Your task to perform on an android device: What's on my calendar today? Image 0: 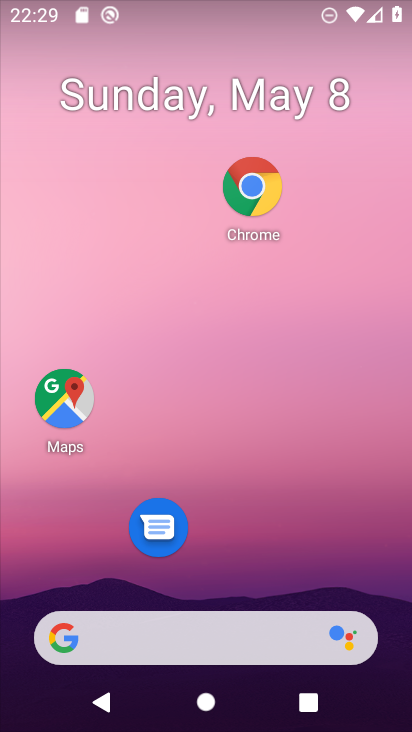
Step 0: drag from (277, 368) to (277, 295)
Your task to perform on an android device: What's on my calendar today? Image 1: 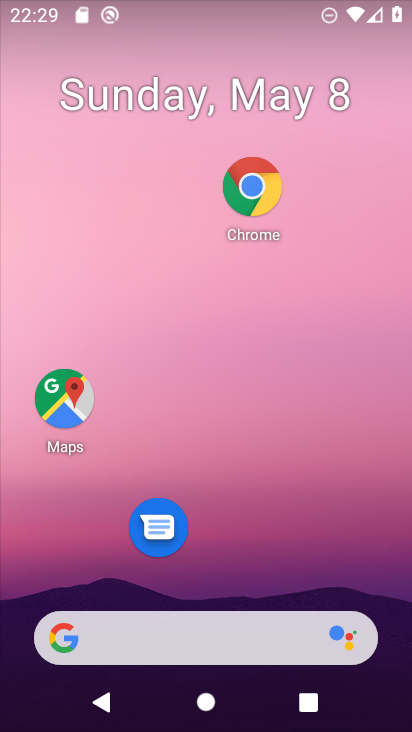
Step 1: drag from (366, 538) to (386, 285)
Your task to perform on an android device: What's on my calendar today? Image 2: 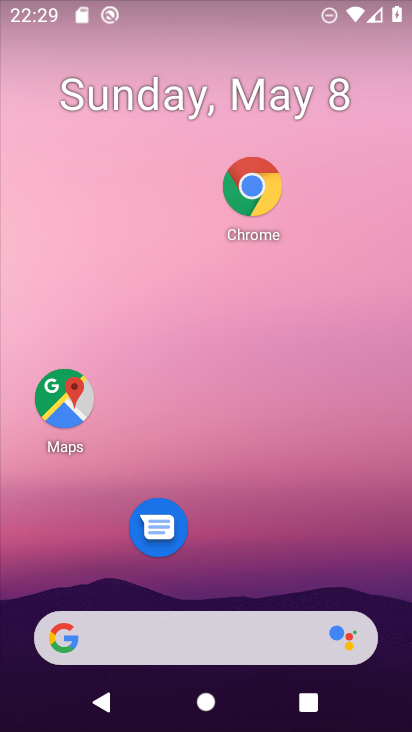
Step 2: drag from (255, 563) to (319, 369)
Your task to perform on an android device: What's on my calendar today? Image 3: 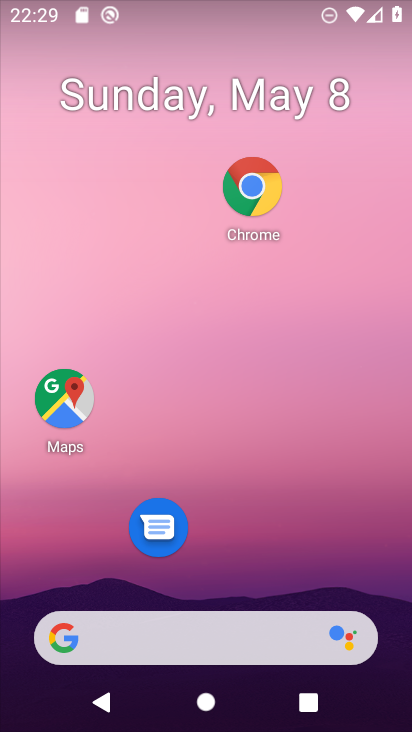
Step 3: drag from (284, 440) to (281, 198)
Your task to perform on an android device: What's on my calendar today? Image 4: 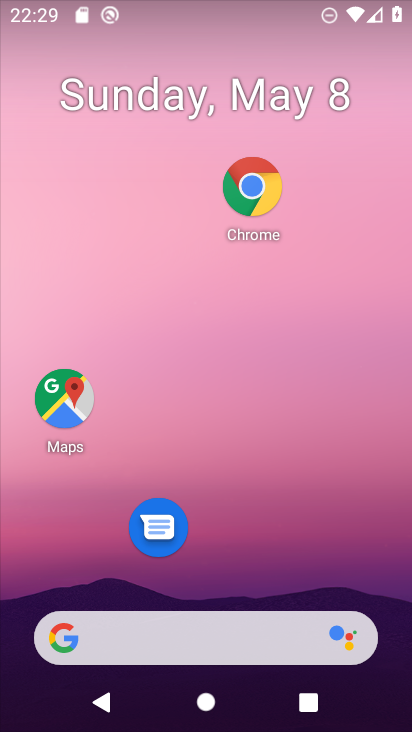
Step 4: drag from (275, 475) to (313, 322)
Your task to perform on an android device: What's on my calendar today? Image 5: 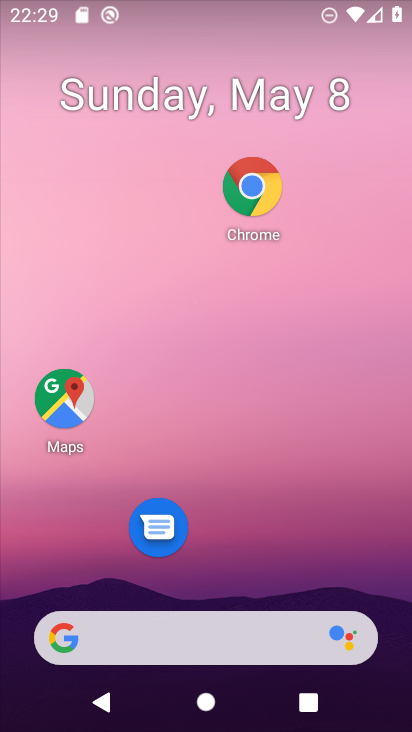
Step 5: drag from (227, 595) to (312, 107)
Your task to perform on an android device: What's on my calendar today? Image 6: 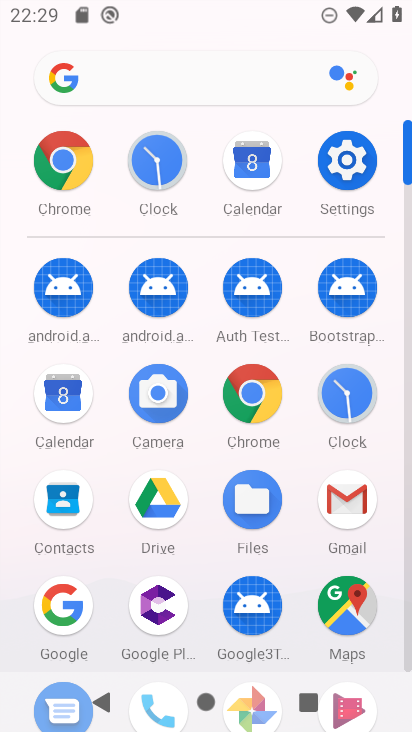
Step 6: click (68, 384)
Your task to perform on an android device: What's on my calendar today? Image 7: 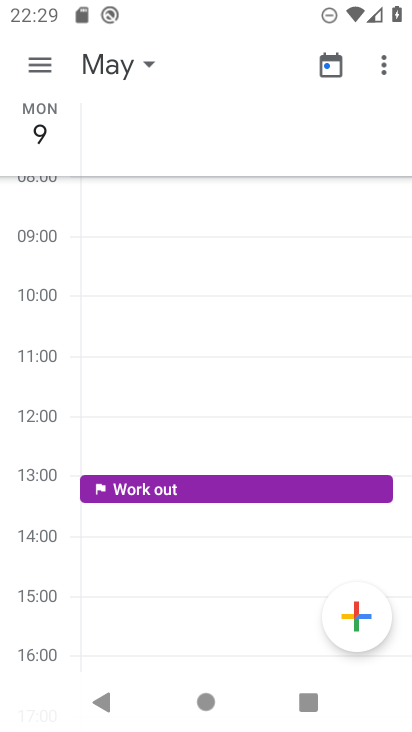
Step 7: click (49, 60)
Your task to perform on an android device: What's on my calendar today? Image 8: 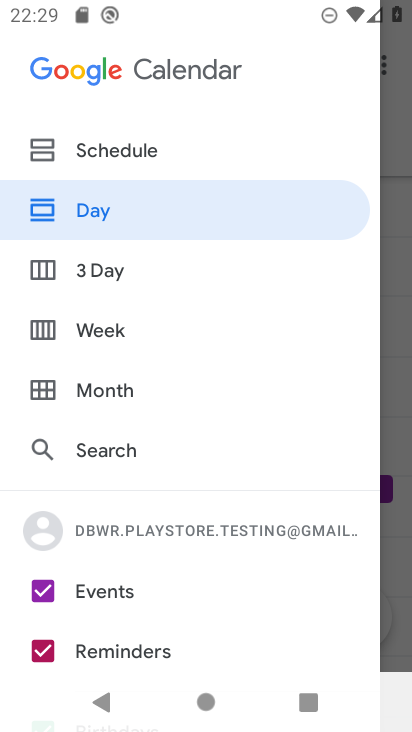
Step 8: click (107, 334)
Your task to perform on an android device: What's on my calendar today? Image 9: 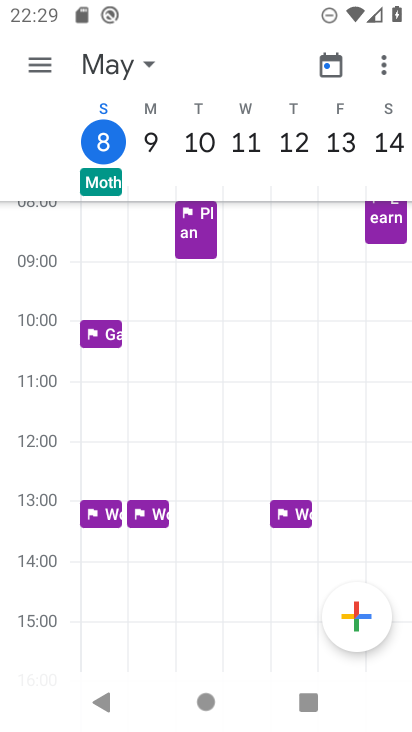
Step 9: click (94, 127)
Your task to perform on an android device: What's on my calendar today? Image 10: 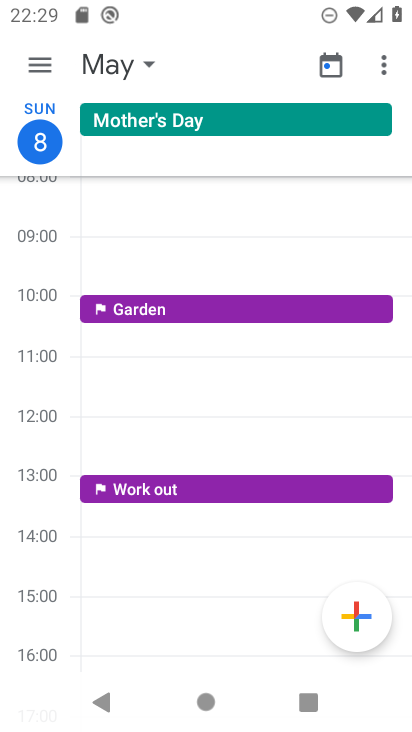
Step 10: press back button
Your task to perform on an android device: What's on my calendar today? Image 11: 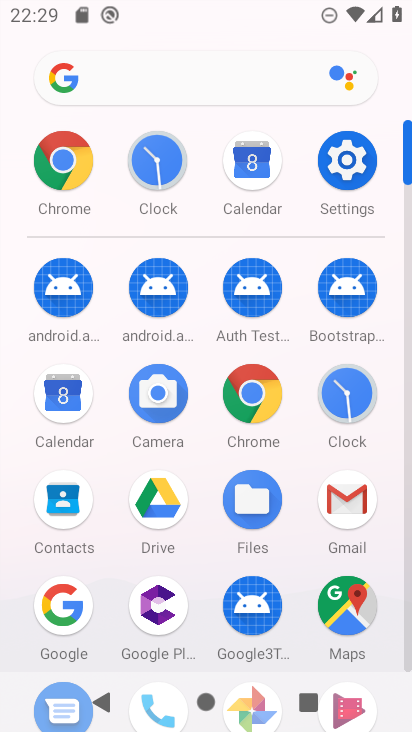
Step 11: click (48, 397)
Your task to perform on an android device: What's on my calendar today? Image 12: 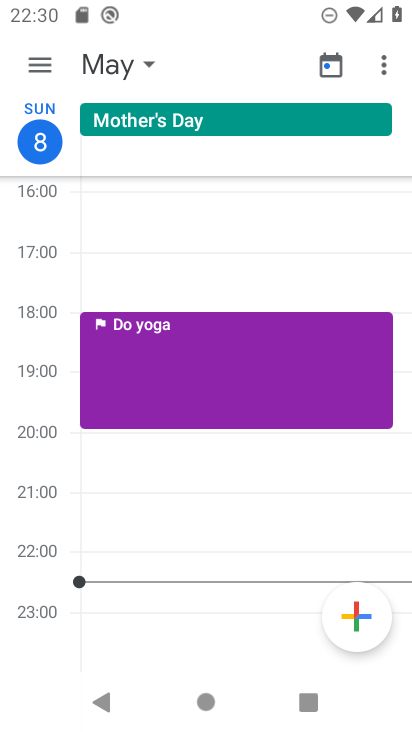
Step 12: click (37, 60)
Your task to perform on an android device: What's on my calendar today? Image 13: 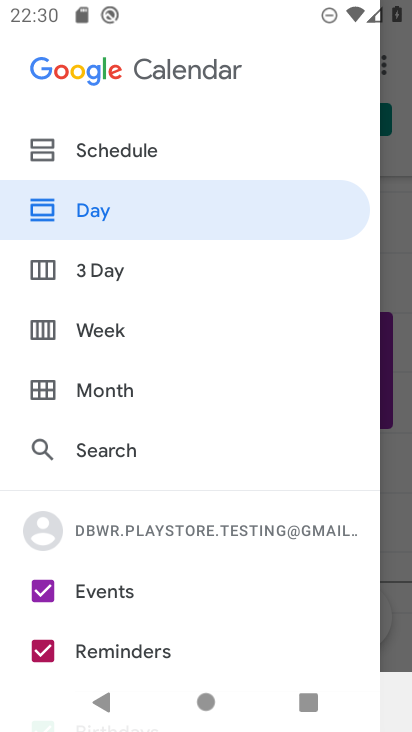
Step 13: click (134, 381)
Your task to perform on an android device: What's on my calendar today? Image 14: 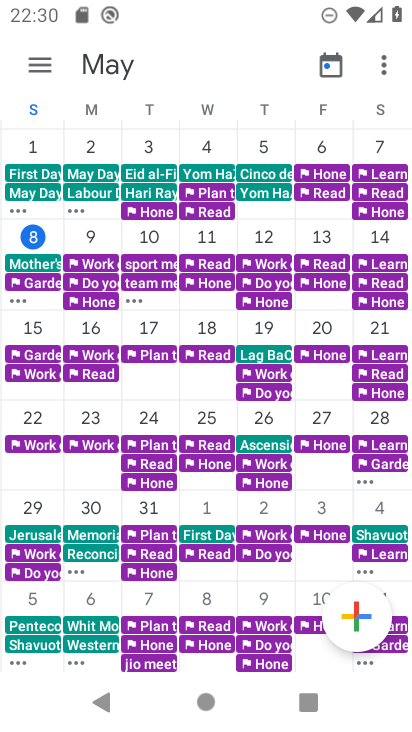
Step 14: click (86, 226)
Your task to perform on an android device: What's on my calendar today? Image 15: 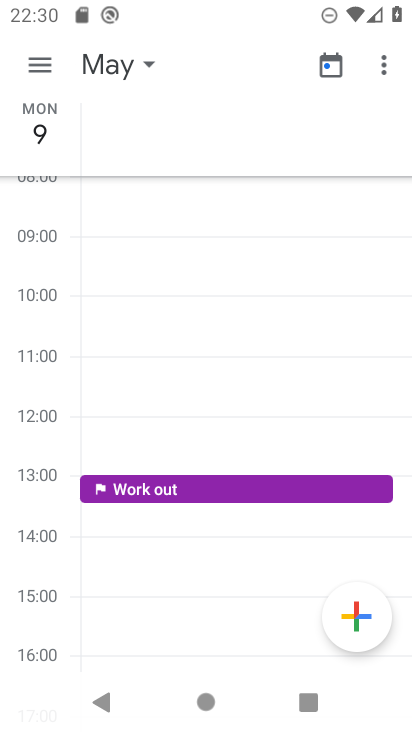
Step 15: task complete